Your task to perform on an android device: Go to Android settings Image 0: 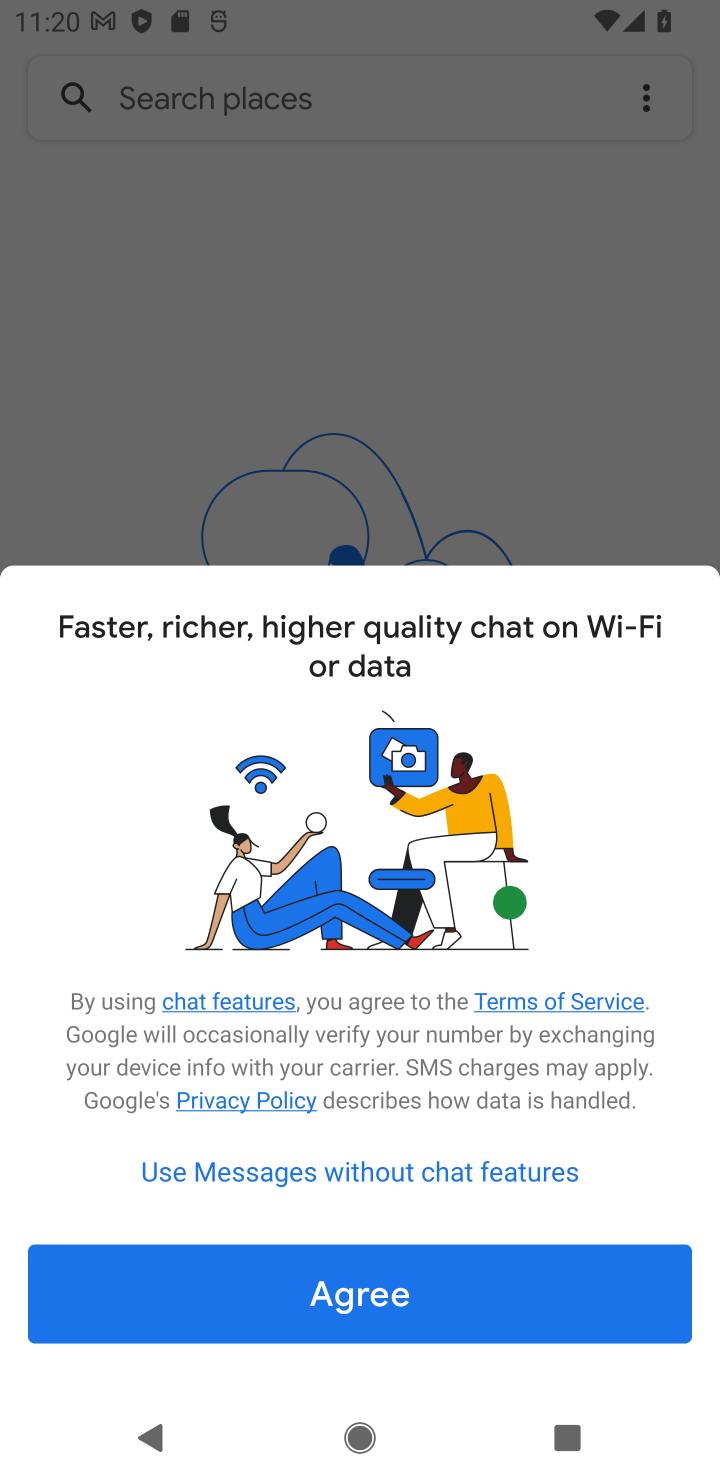
Step 0: press home button
Your task to perform on an android device: Go to Android settings Image 1: 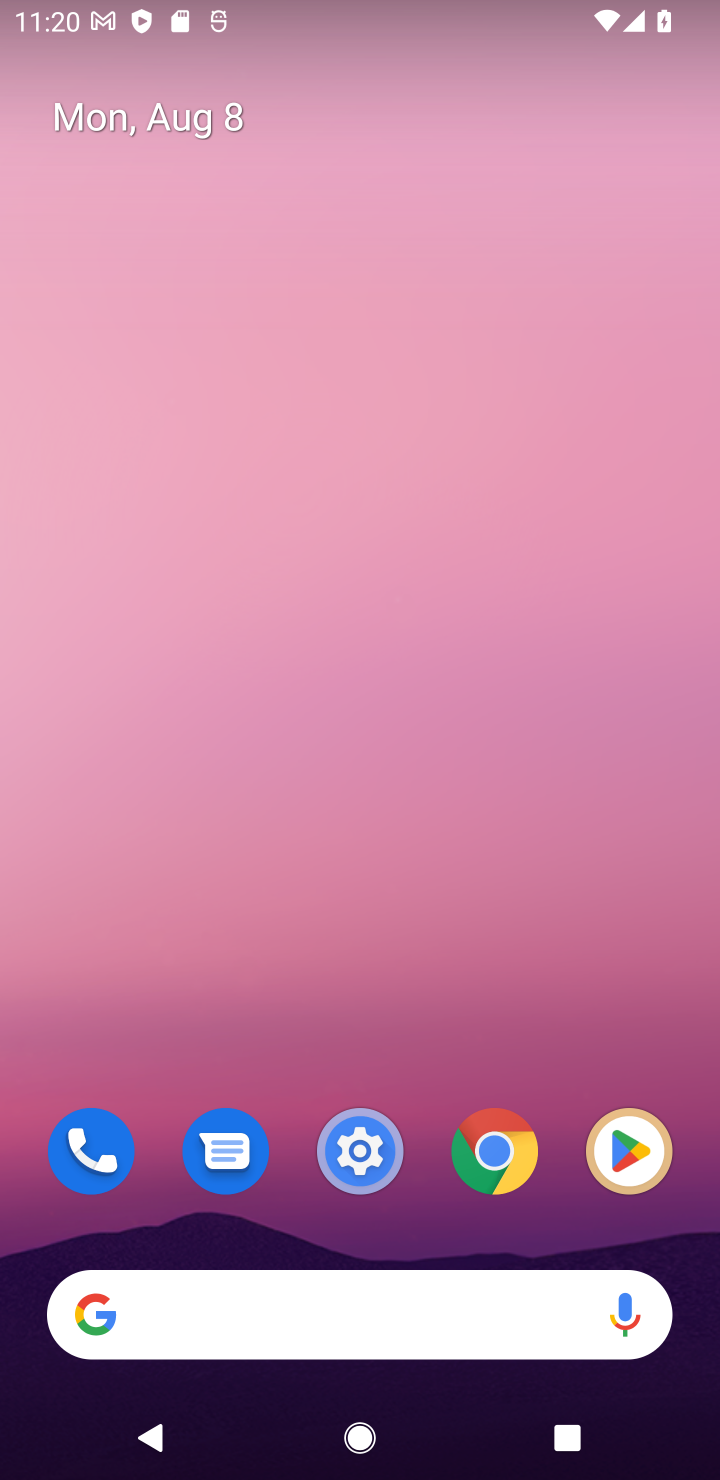
Step 1: drag from (327, 1244) to (298, 495)
Your task to perform on an android device: Go to Android settings Image 2: 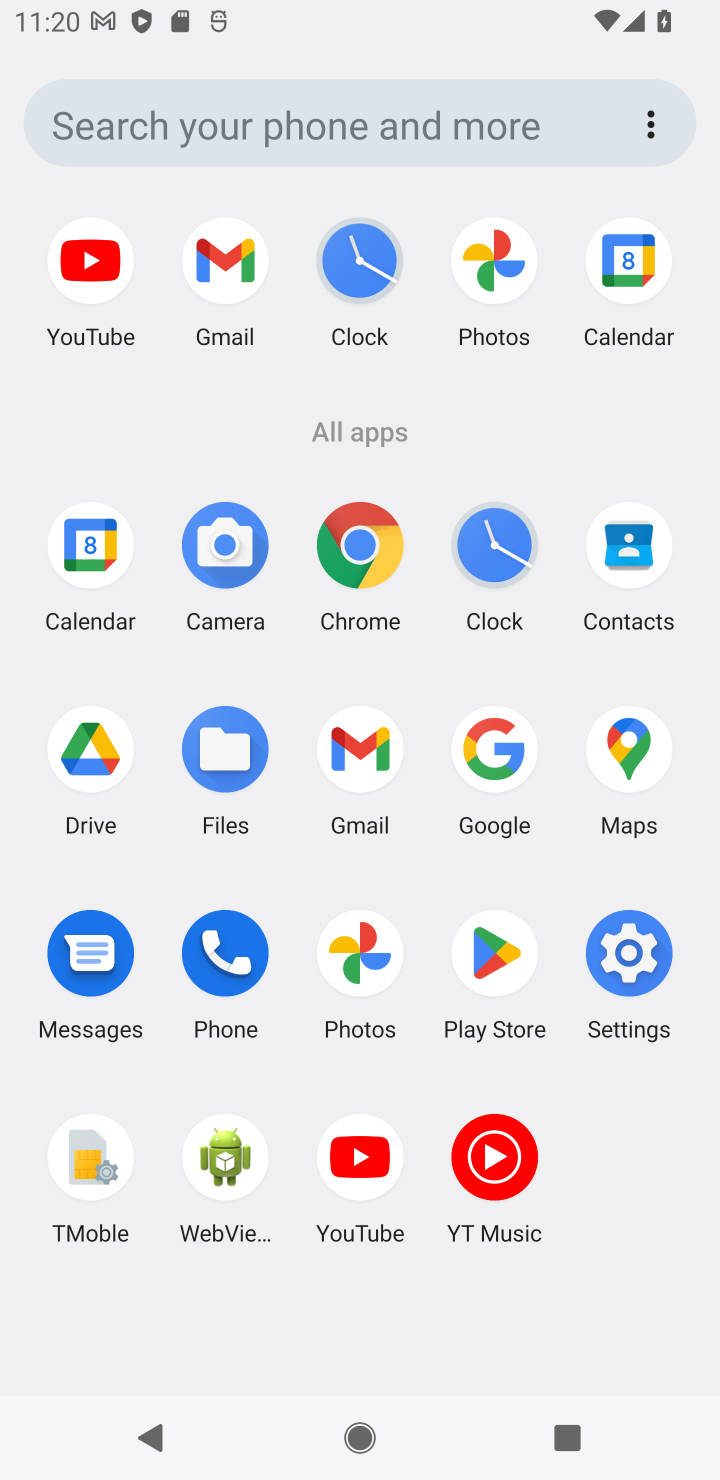
Step 2: click (613, 978)
Your task to perform on an android device: Go to Android settings Image 3: 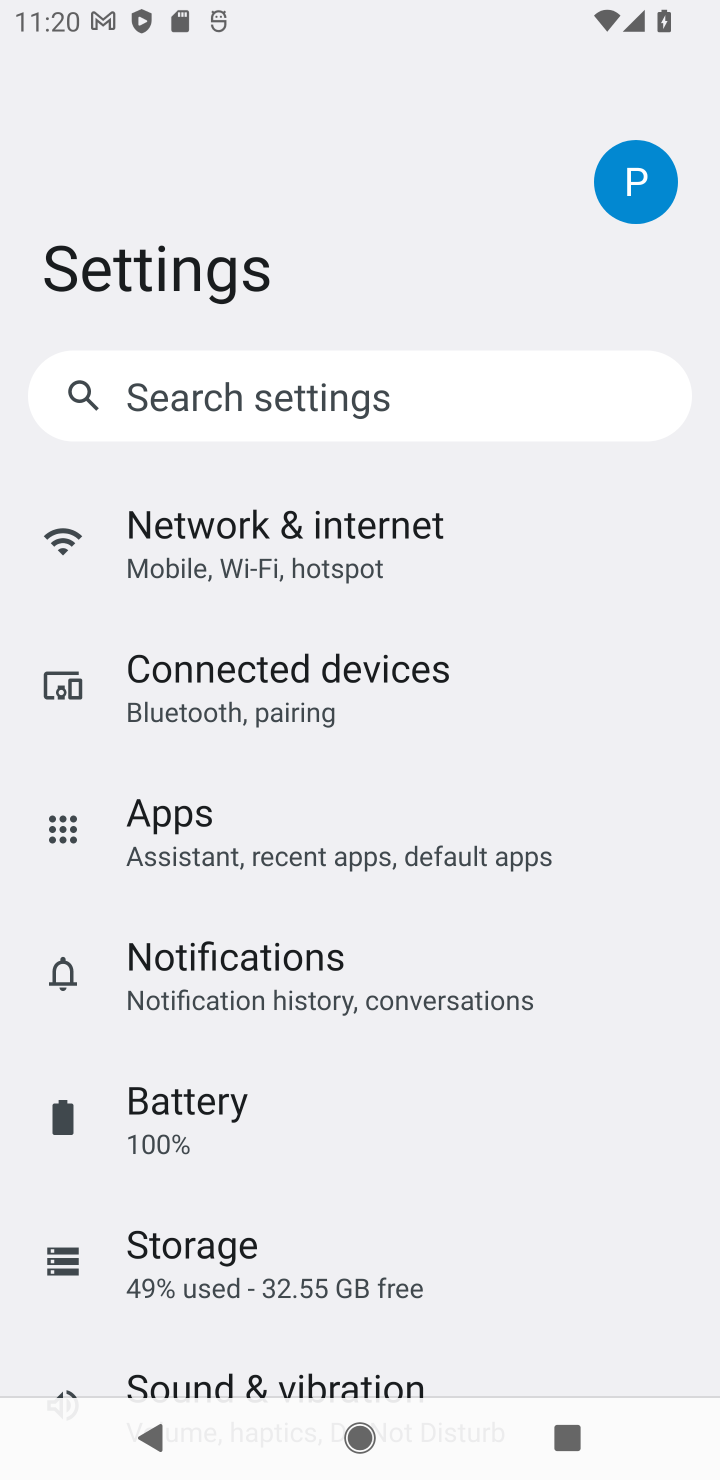
Step 3: task complete